Your task to perform on an android device: Go to internet settings Image 0: 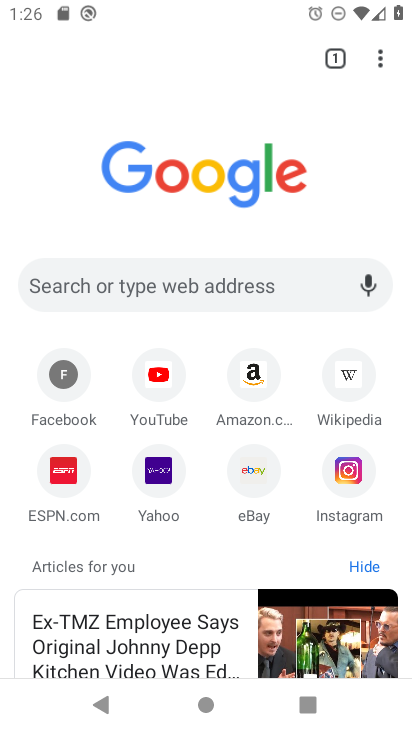
Step 0: press home button
Your task to perform on an android device: Go to internet settings Image 1: 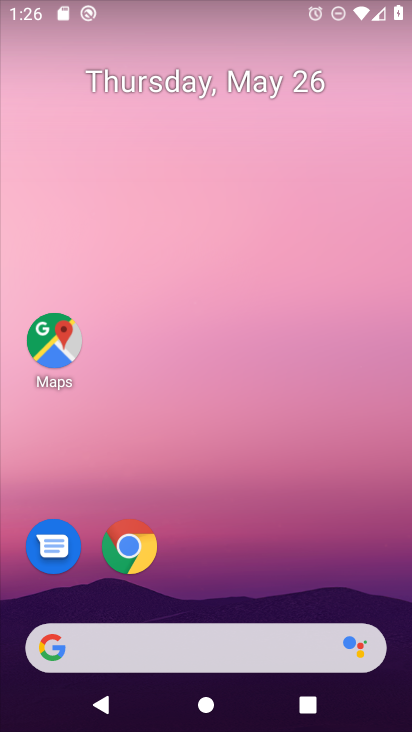
Step 1: drag from (240, 621) to (237, 320)
Your task to perform on an android device: Go to internet settings Image 2: 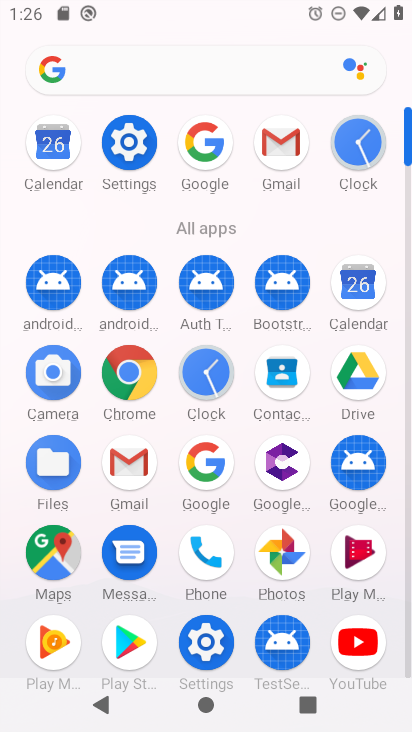
Step 2: click (133, 160)
Your task to perform on an android device: Go to internet settings Image 3: 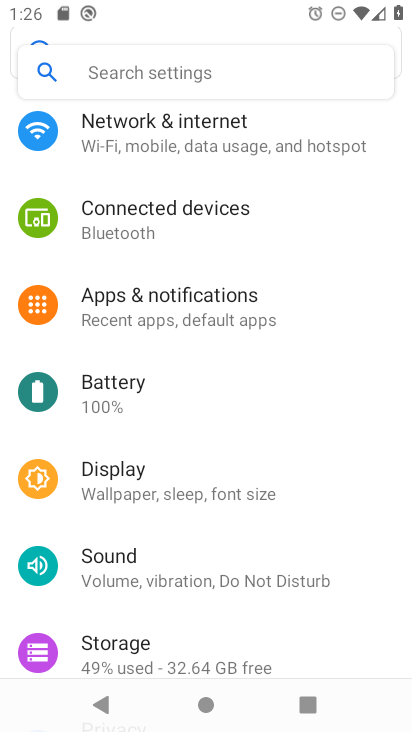
Step 3: drag from (127, 148) to (137, 609)
Your task to perform on an android device: Go to internet settings Image 4: 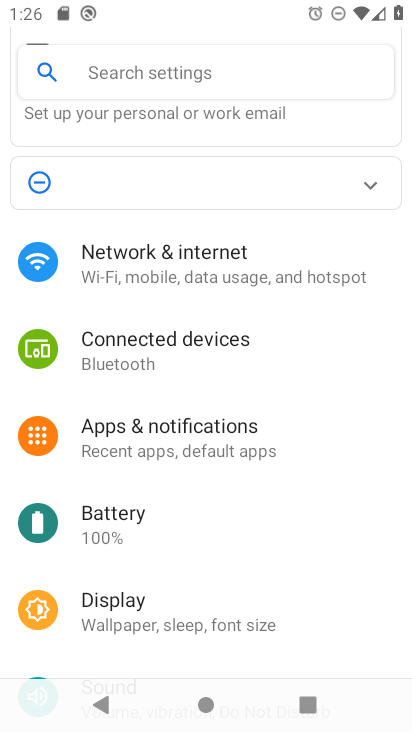
Step 4: click (223, 244)
Your task to perform on an android device: Go to internet settings Image 5: 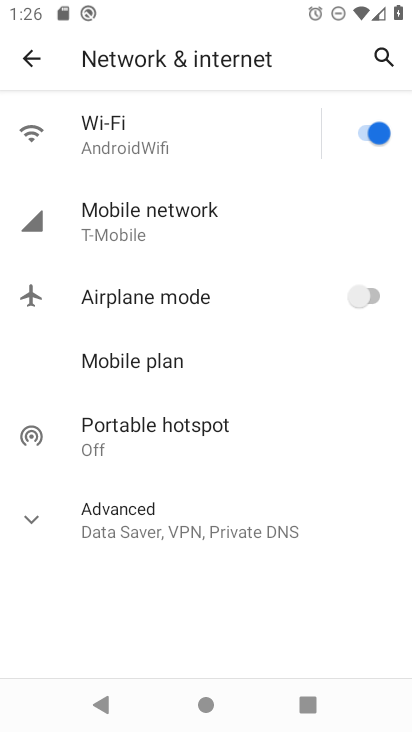
Step 5: click (177, 216)
Your task to perform on an android device: Go to internet settings Image 6: 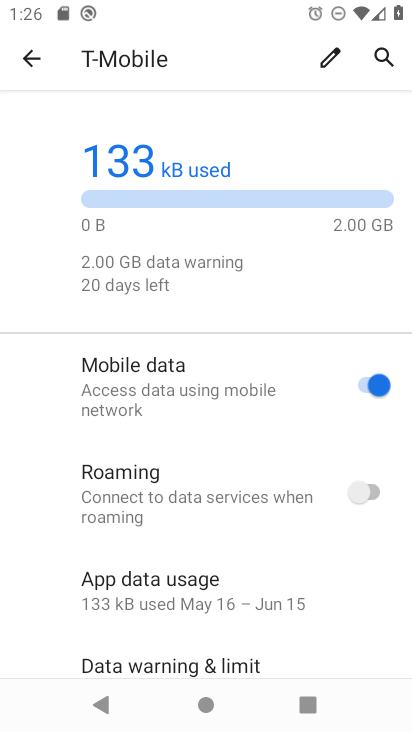
Step 6: task complete